Your task to perform on an android device: Open location settings Image 0: 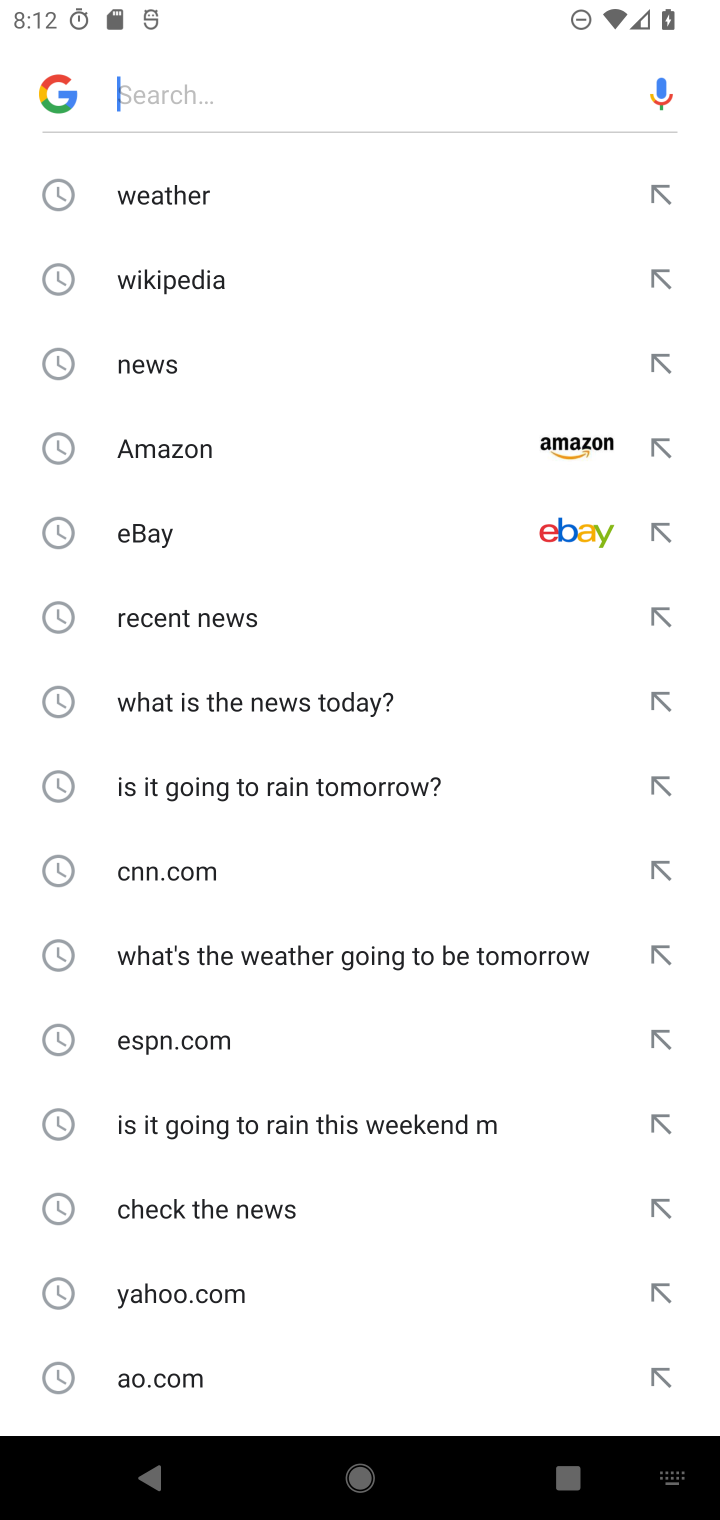
Step 0: press home button
Your task to perform on an android device: Open location settings Image 1: 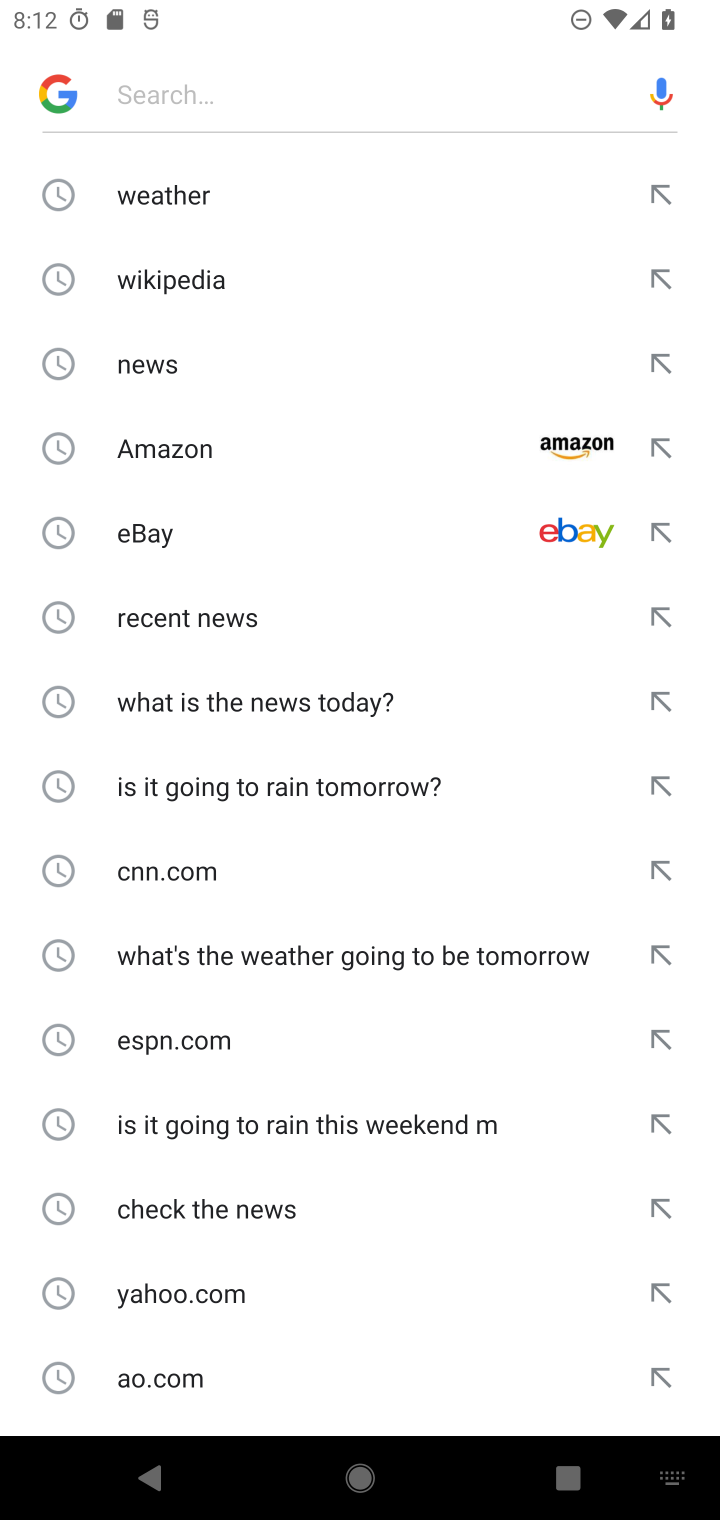
Step 1: press home button
Your task to perform on an android device: Open location settings Image 2: 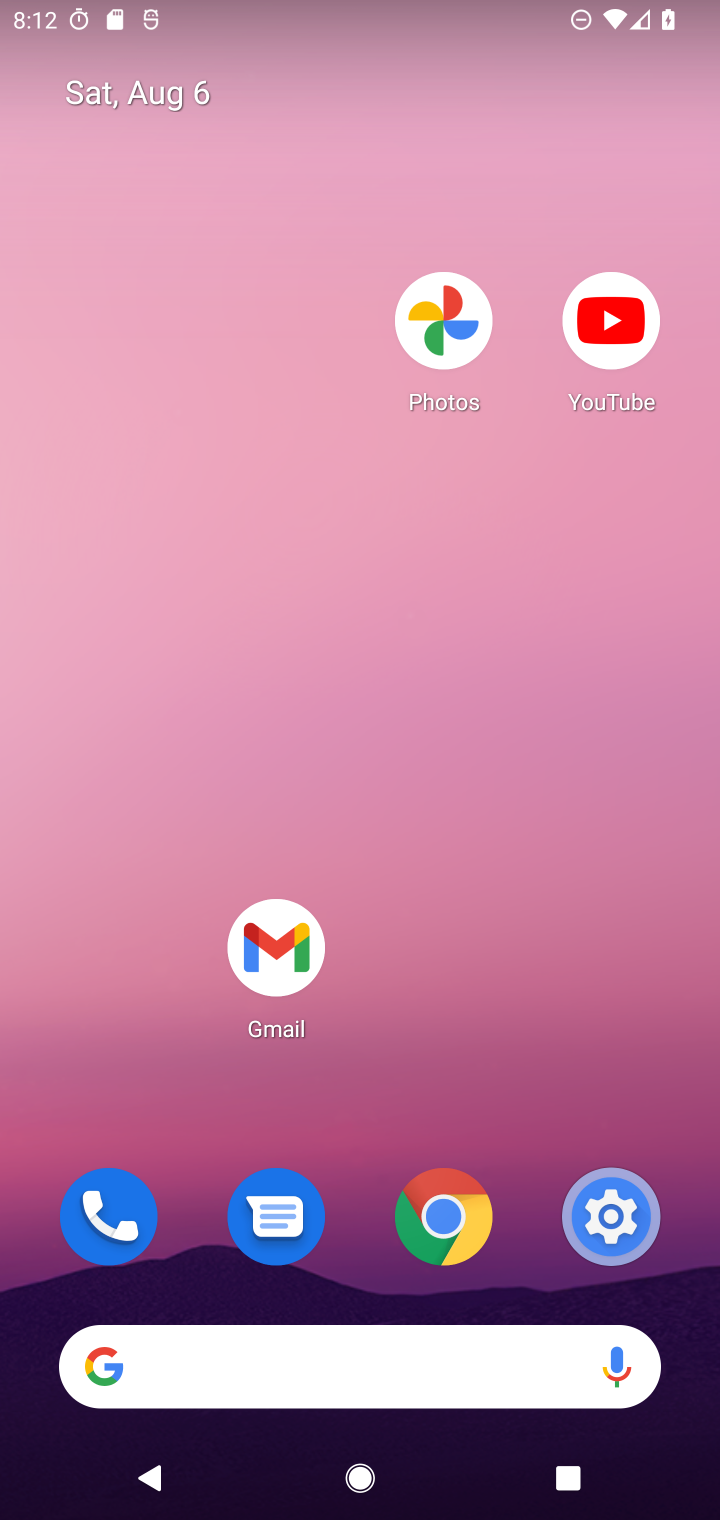
Step 2: drag from (495, 881) to (11, 977)
Your task to perform on an android device: Open location settings Image 3: 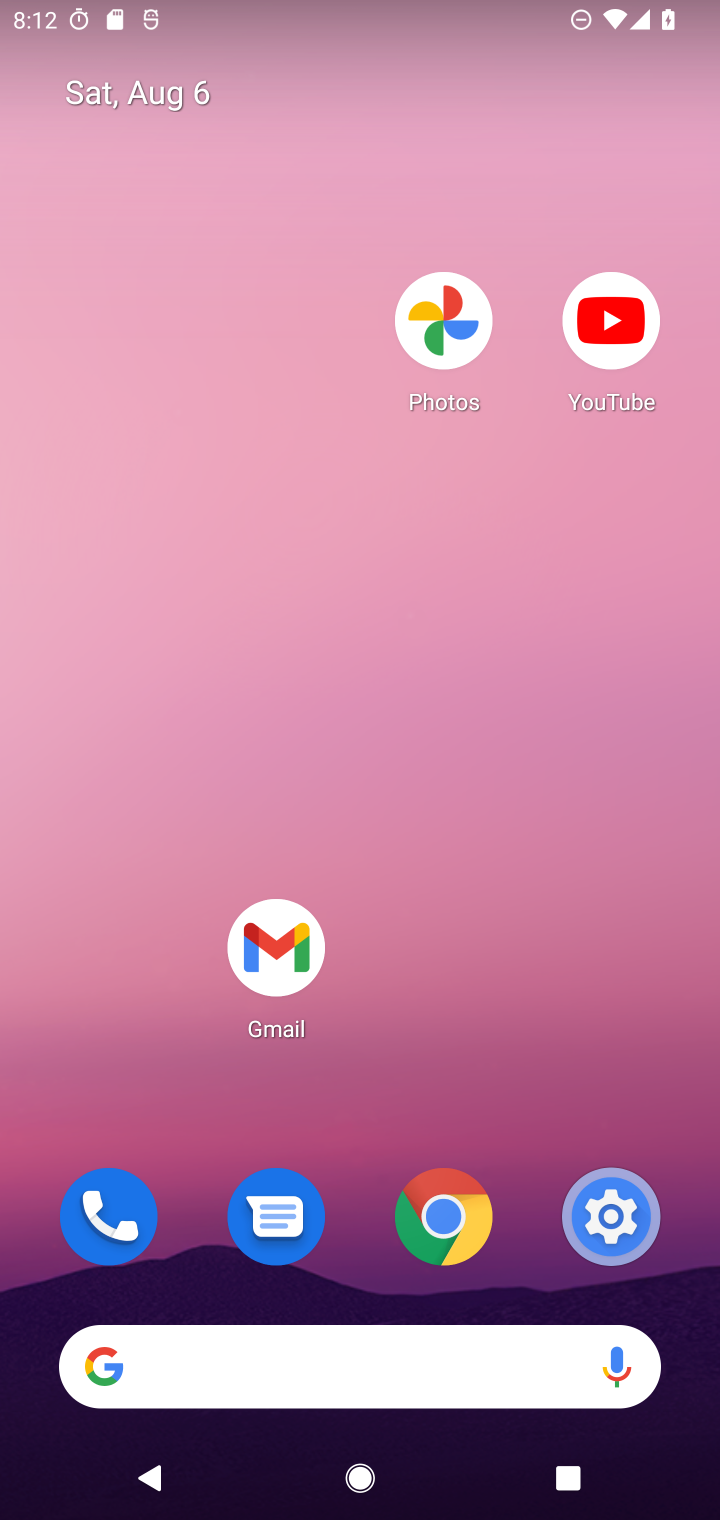
Step 3: drag from (391, 643) to (358, 0)
Your task to perform on an android device: Open location settings Image 4: 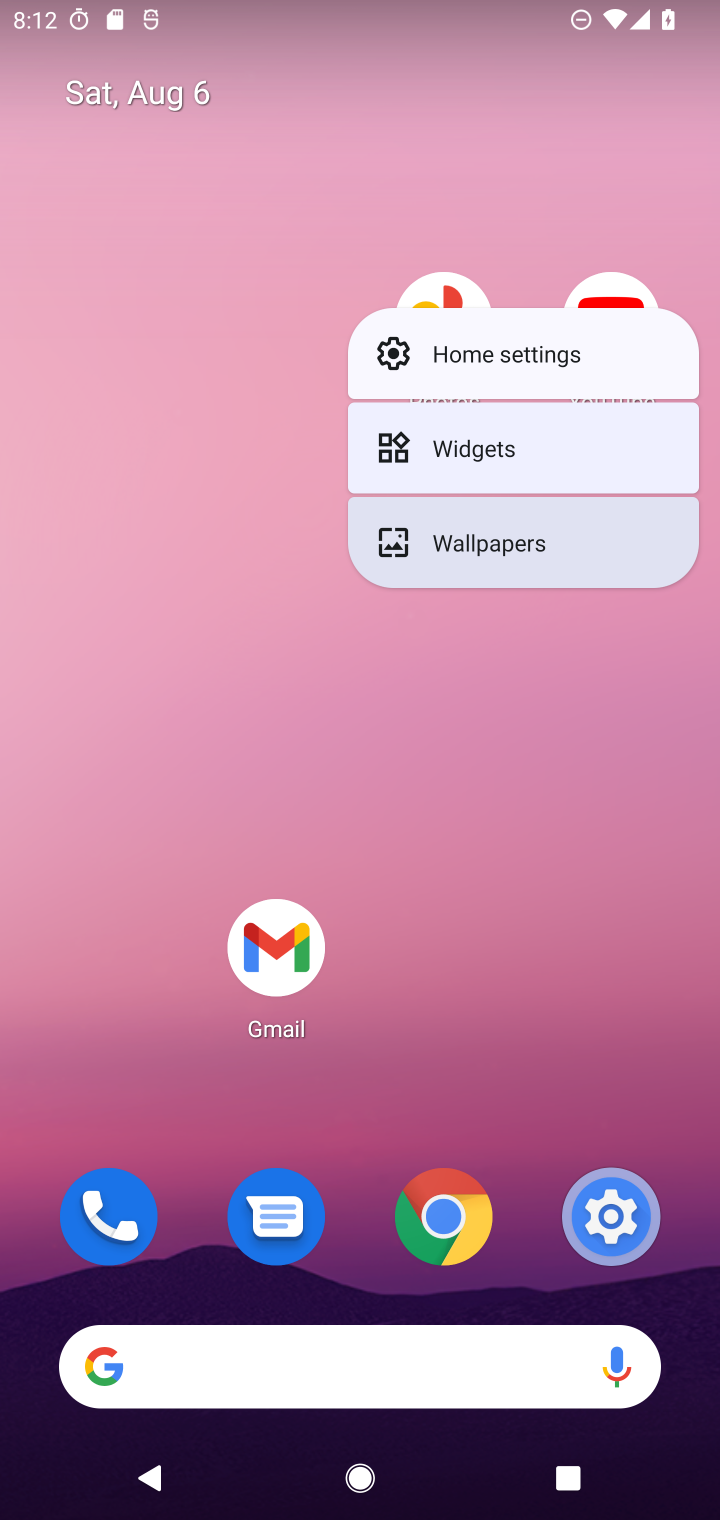
Step 4: click (602, 933)
Your task to perform on an android device: Open location settings Image 5: 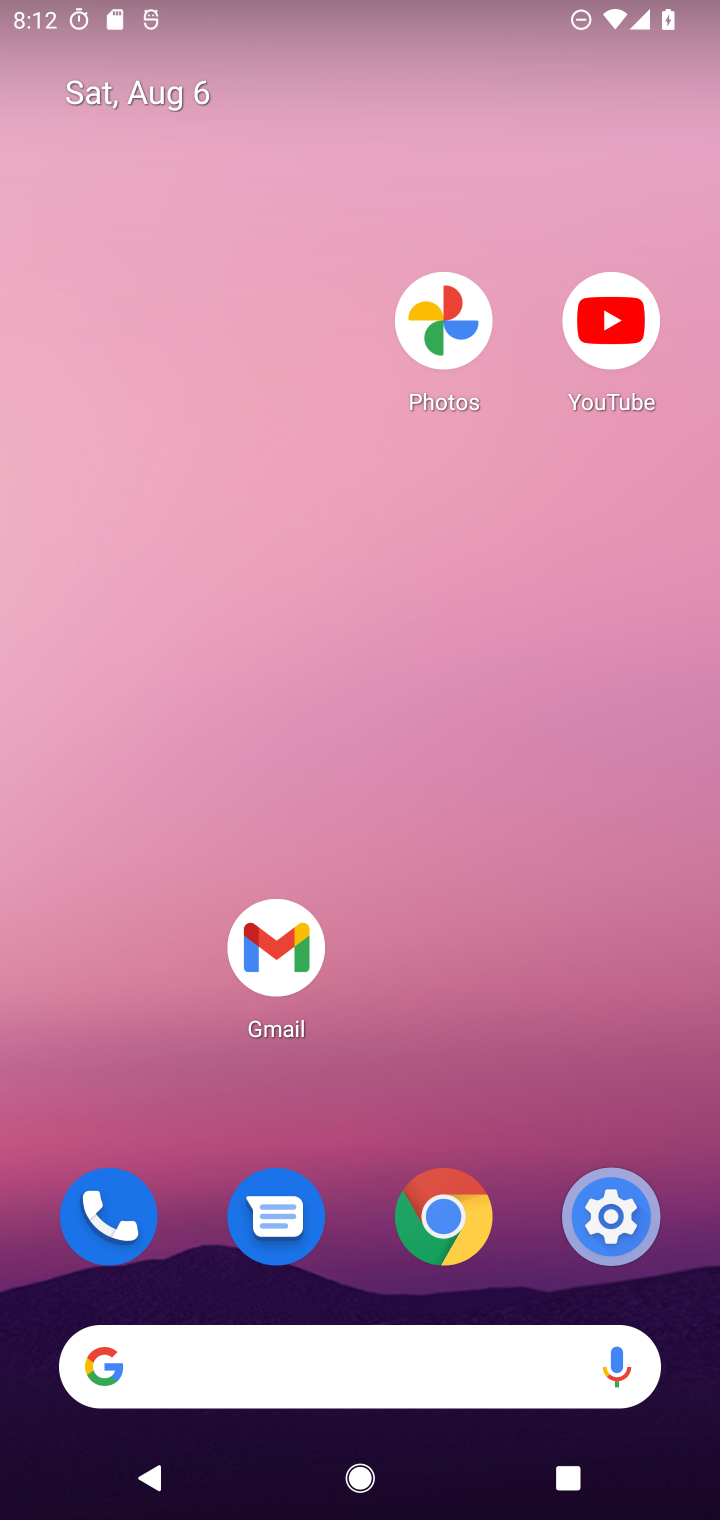
Step 5: click (607, 910)
Your task to perform on an android device: Open location settings Image 6: 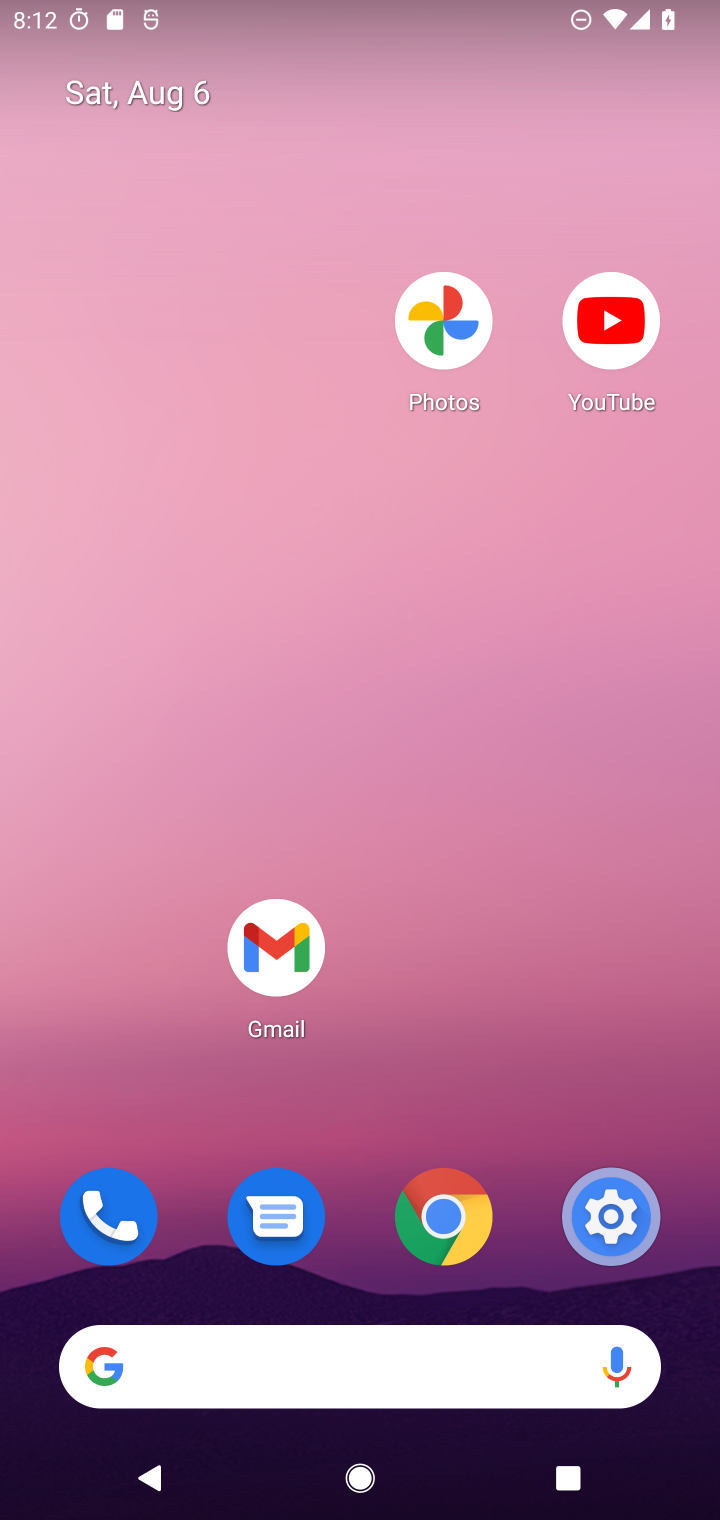
Step 6: drag from (307, 429) to (221, 0)
Your task to perform on an android device: Open location settings Image 7: 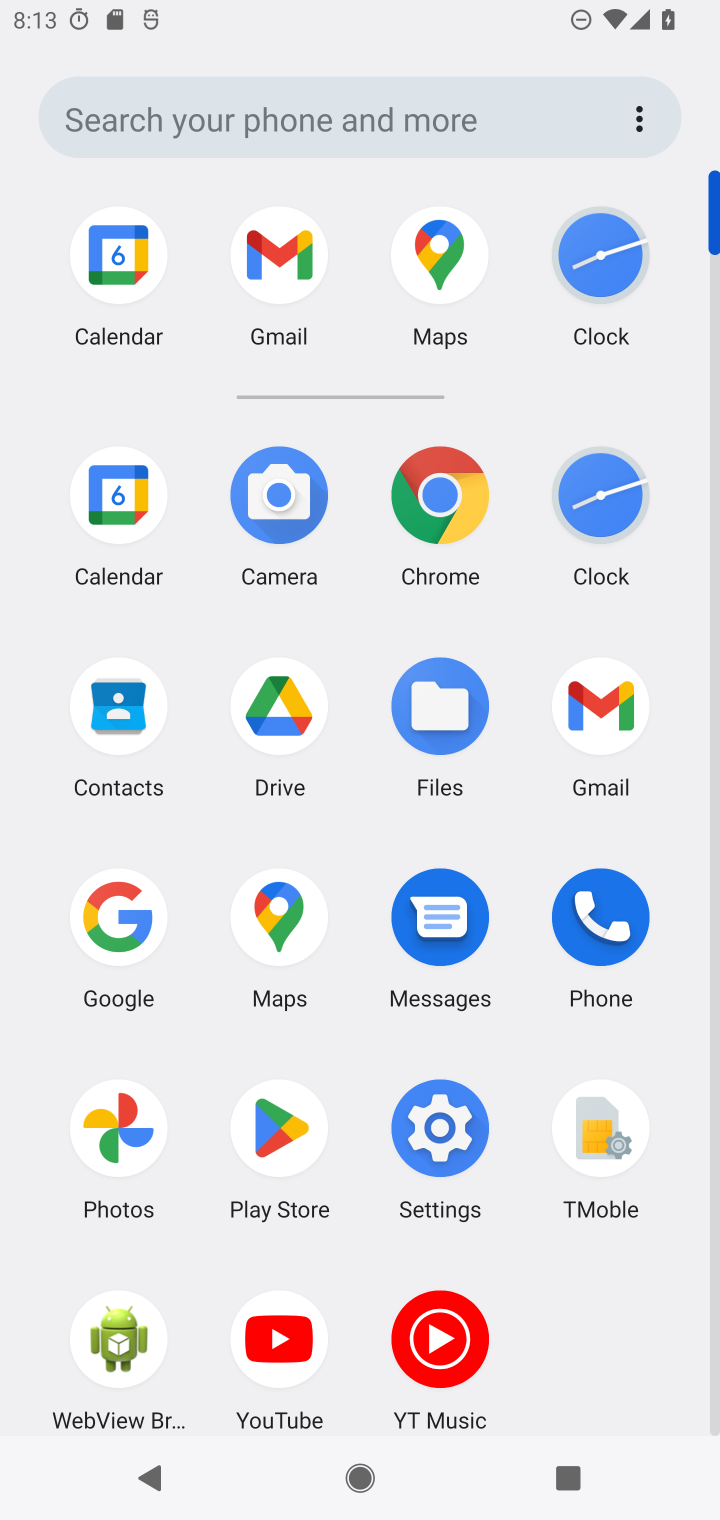
Step 7: click (458, 1124)
Your task to perform on an android device: Open location settings Image 8: 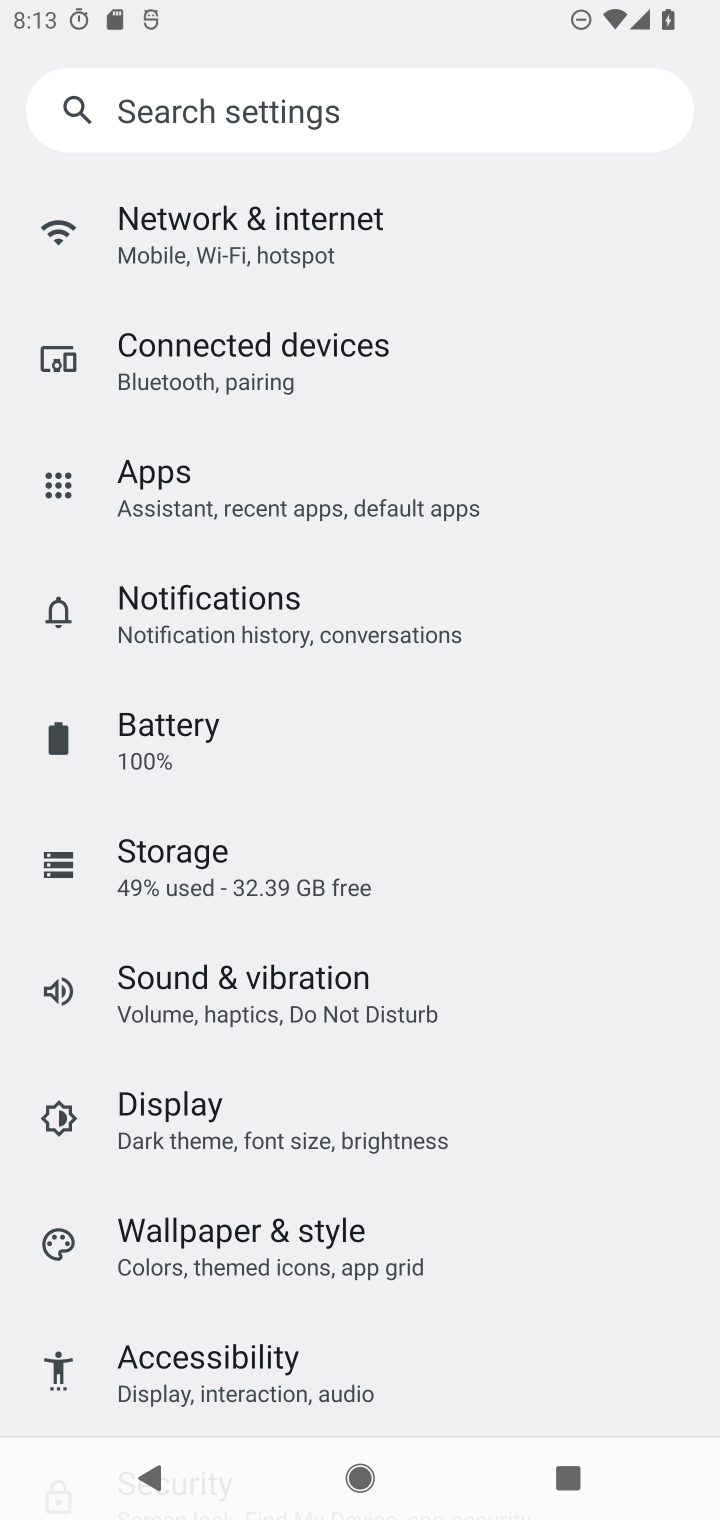
Step 8: drag from (572, 1020) to (599, 271)
Your task to perform on an android device: Open location settings Image 9: 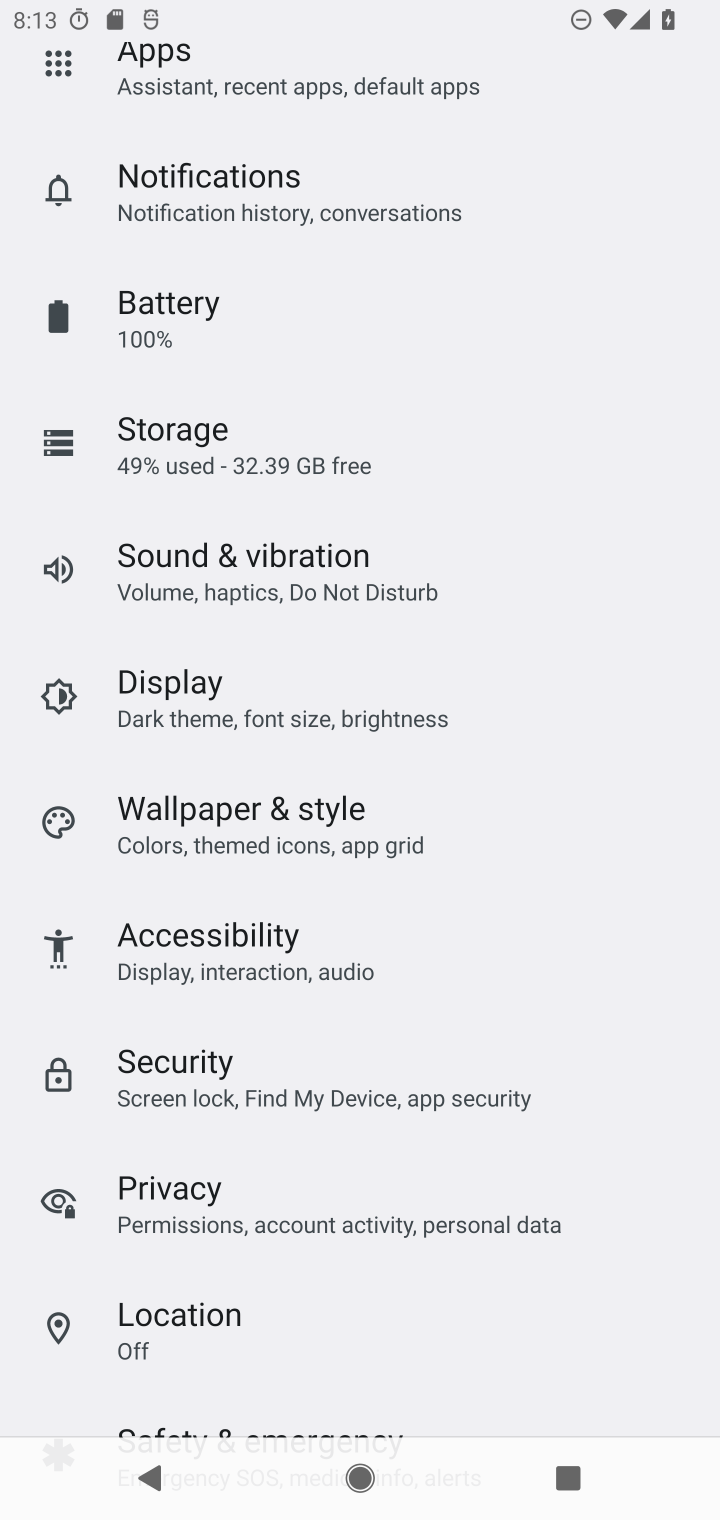
Step 9: click (178, 1307)
Your task to perform on an android device: Open location settings Image 10: 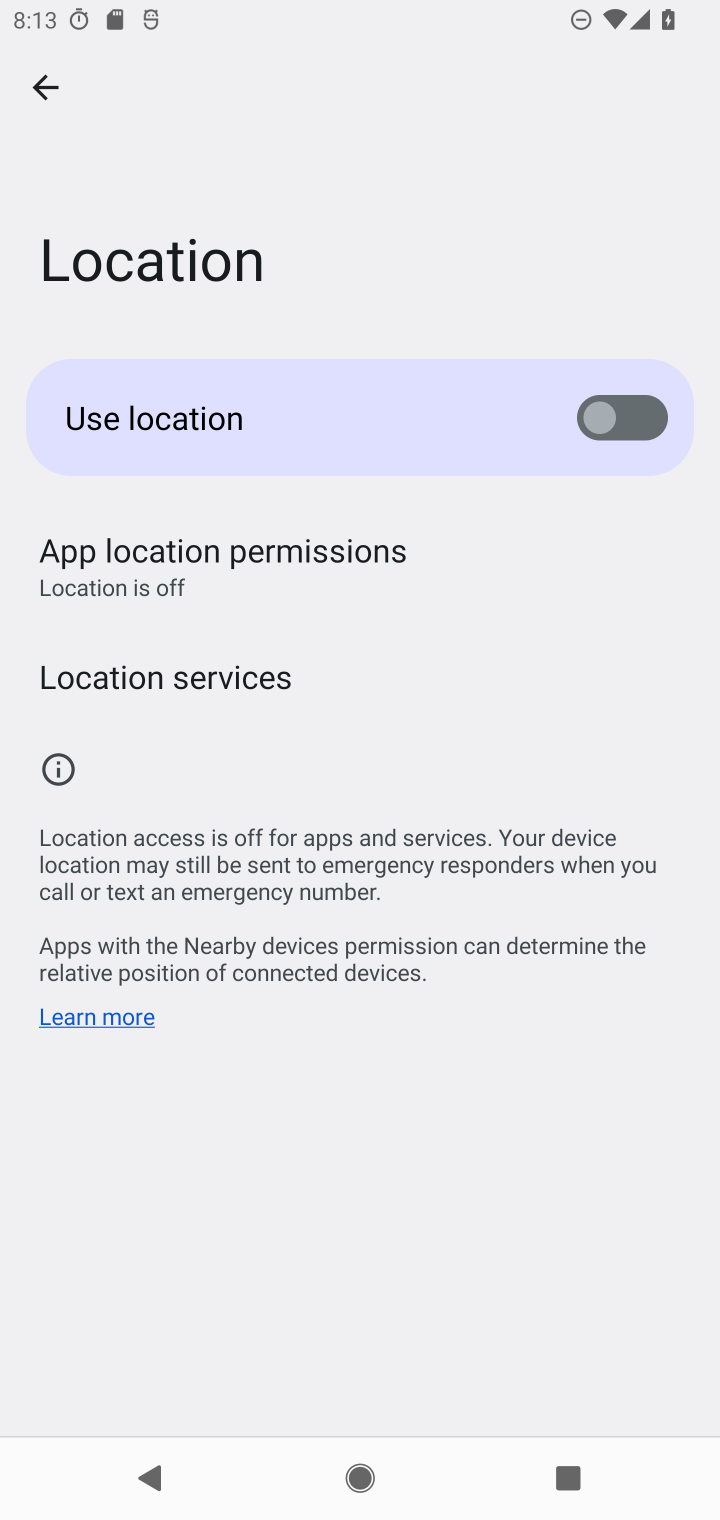
Step 10: task complete